Your task to perform on an android device: Do I have any events today? Image 0: 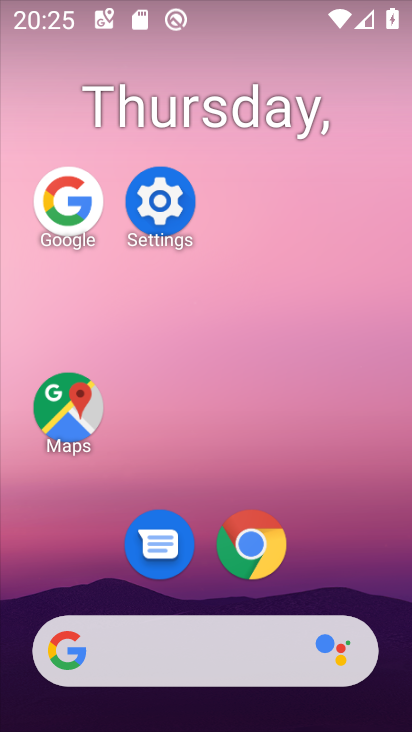
Step 0: drag from (230, 694) to (234, 129)
Your task to perform on an android device: Do I have any events today? Image 1: 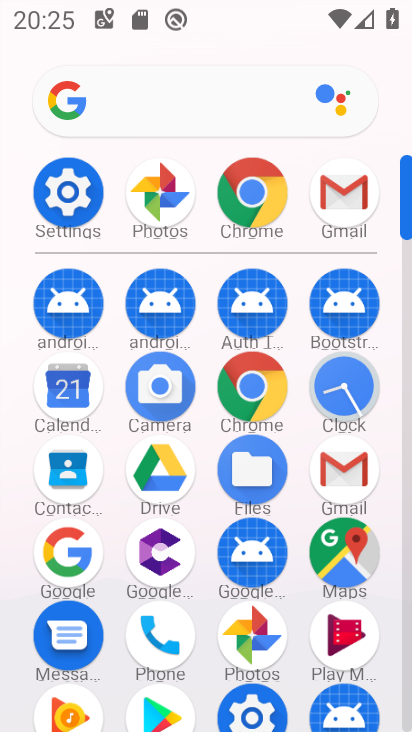
Step 1: click (174, 111)
Your task to perform on an android device: Do I have any events today? Image 2: 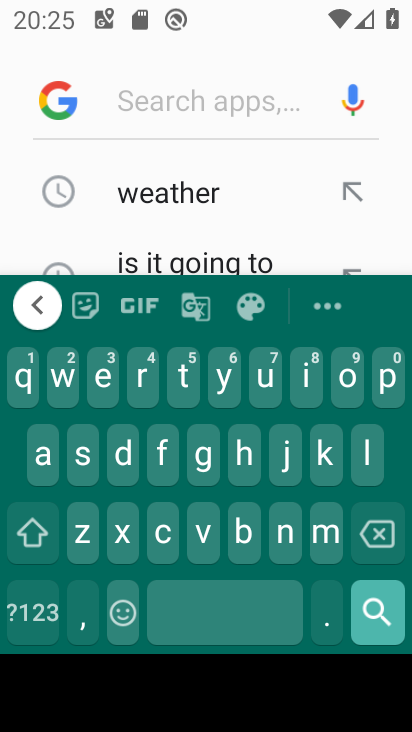
Step 2: press back button
Your task to perform on an android device: Do I have any events today? Image 3: 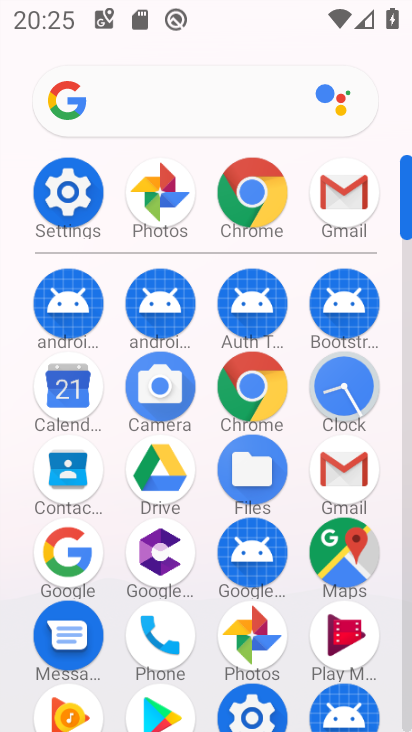
Step 3: click (76, 373)
Your task to perform on an android device: Do I have any events today? Image 4: 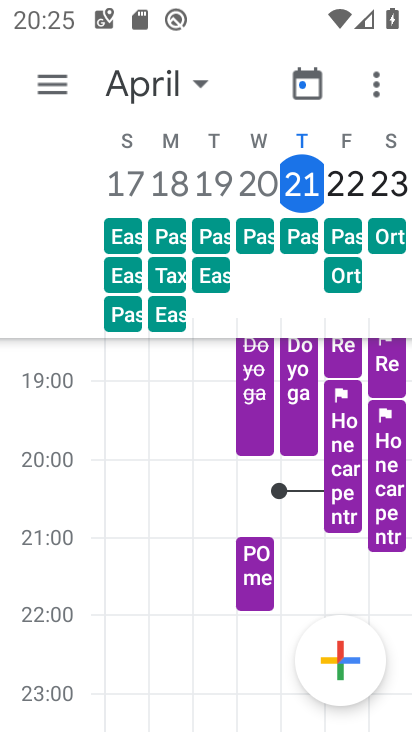
Step 4: click (51, 89)
Your task to perform on an android device: Do I have any events today? Image 5: 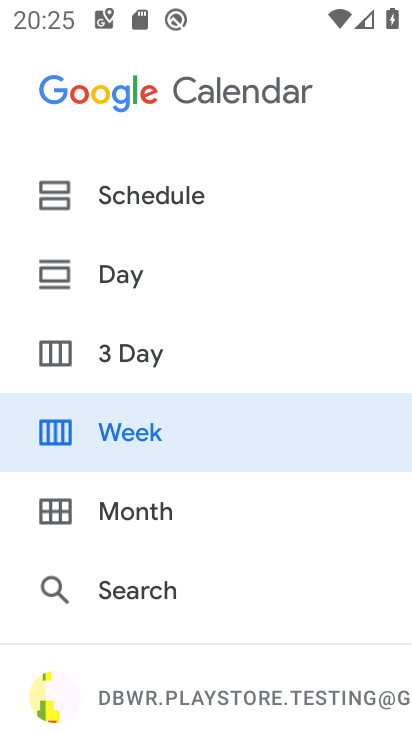
Step 5: click (159, 192)
Your task to perform on an android device: Do I have any events today? Image 6: 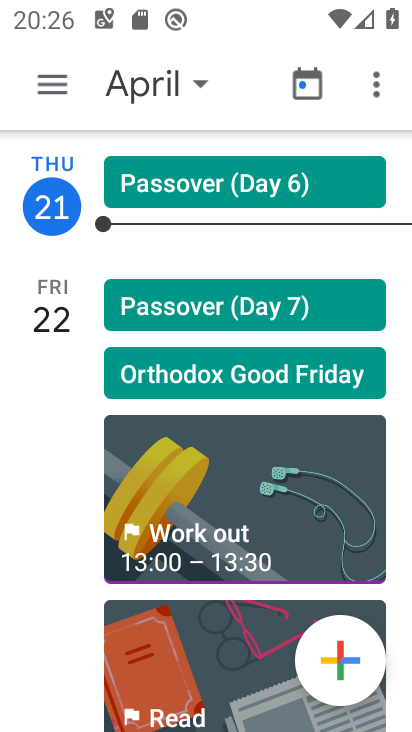
Step 6: task complete